Your task to perform on an android device: Toggle the flashlight Image 0: 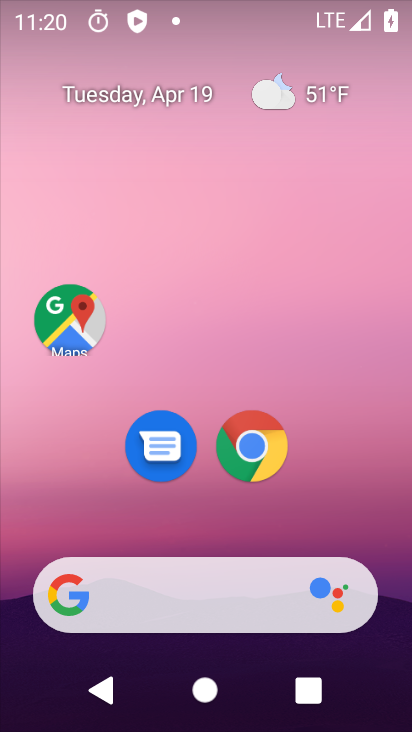
Step 0: click (379, 255)
Your task to perform on an android device: Toggle the flashlight Image 1: 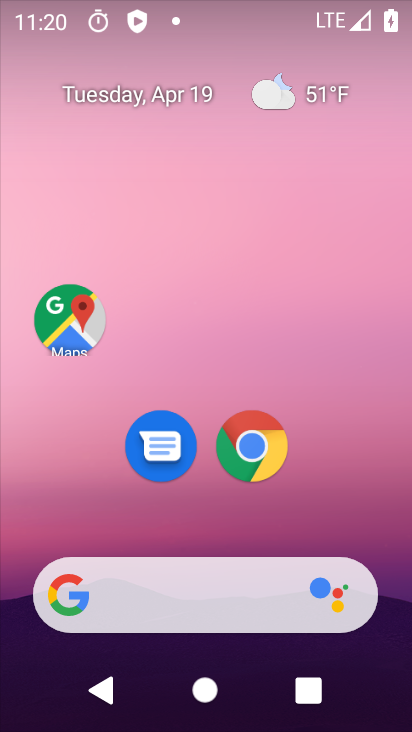
Step 1: drag from (381, 423) to (359, 110)
Your task to perform on an android device: Toggle the flashlight Image 2: 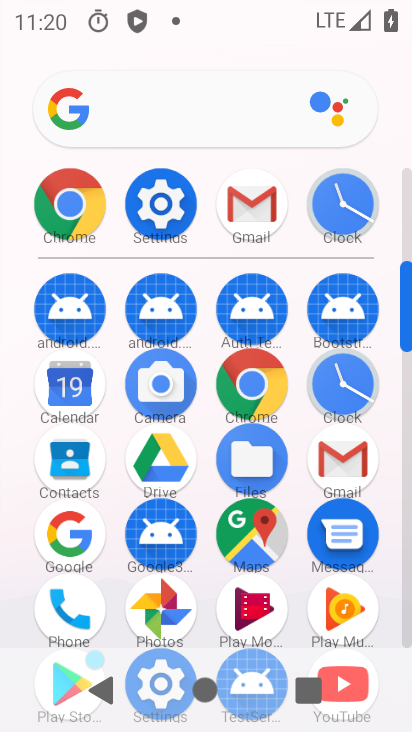
Step 2: click (142, 202)
Your task to perform on an android device: Toggle the flashlight Image 3: 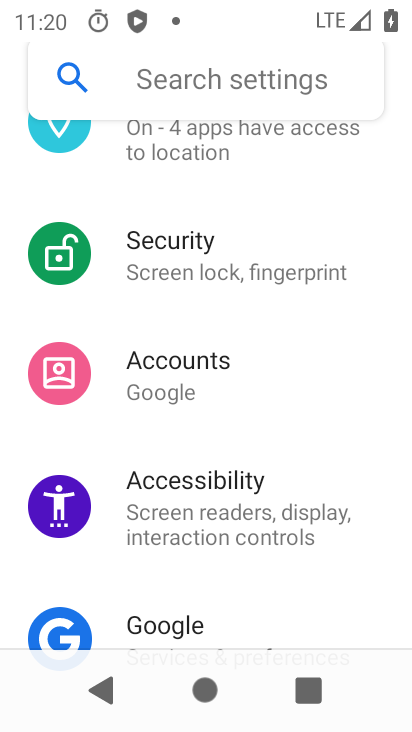
Step 3: task complete